Your task to perform on an android device: Show me popular videos on Youtube Image 0: 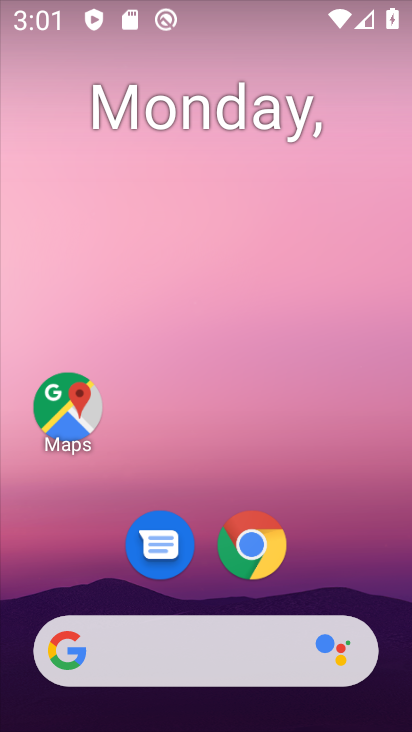
Step 0: drag from (209, 416) to (305, 17)
Your task to perform on an android device: Show me popular videos on Youtube Image 1: 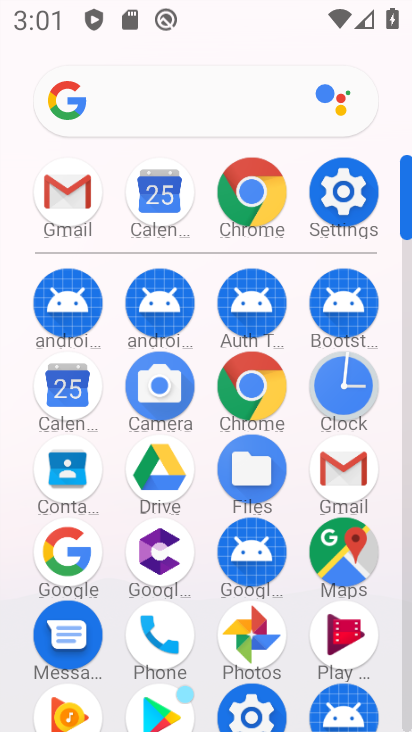
Step 1: drag from (236, 534) to (327, 88)
Your task to perform on an android device: Show me popular videos on Youtube Image 2: 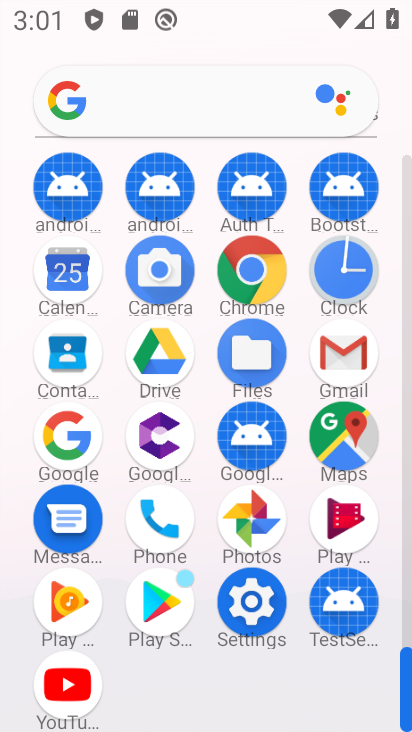
Step 2: click (67, 689)
Your task to perform on an android device: Show me popular videos on Youtube Image 3: 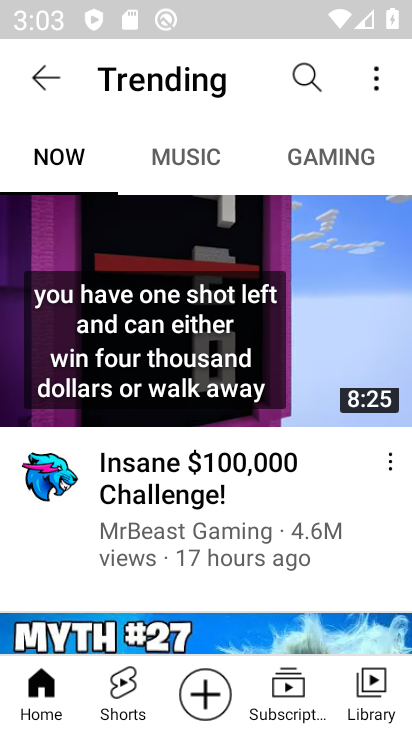
Step 3: task complete